Your task to perform on an android device: Open Google Maps and go to "Timeline" Image 0: 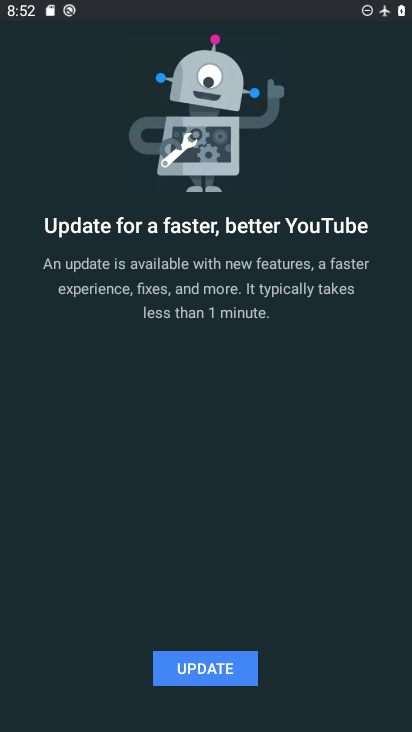
Step 0: press home button
Your task to perform on an android device: Open Google Maps and go to "Timeline" Image 1: 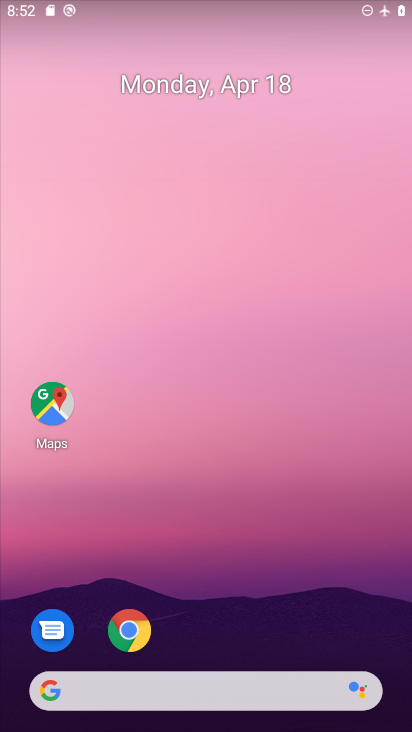
Step 1: click (41, 395)
Your task to perform on an android device: Open Google Maps and go to "Timeline" Image 2: 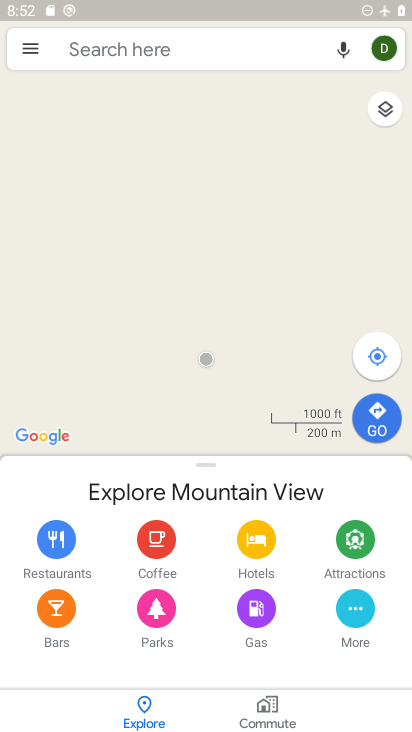
Step 2: click (17, 43)
Your task to perform on an android device: Open Google Maps and go to "Timeline" Image 3: 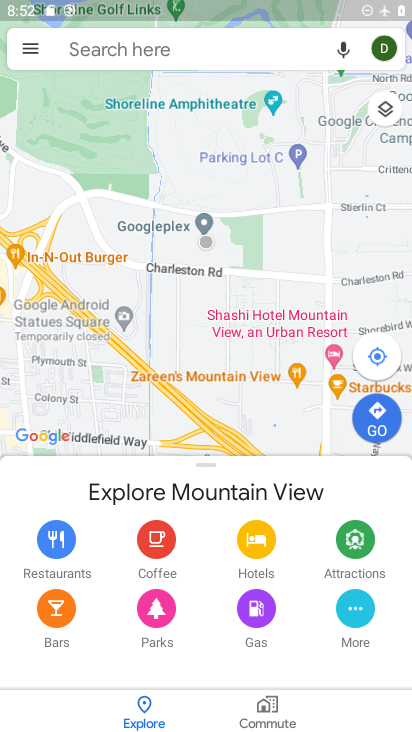
Step 3: click (29, 46)
Your task to perform on an android device: Open Google Maps and go to "Timeline" Image 4: 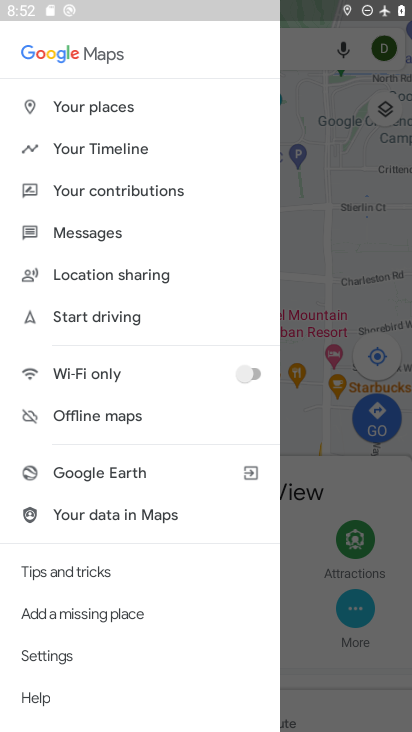
Step 4: click (112, 151)
Your task to perform on an android device: Open Google Maps and go to "Timeline" Image 5: 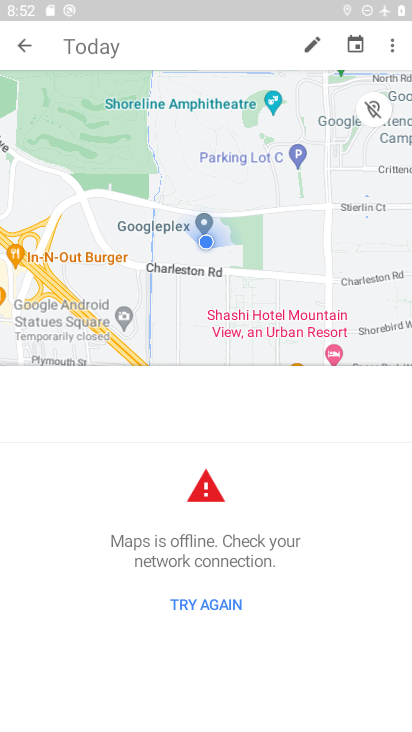
Step 5: task complete